Your task to perform on an android device: Is it going to rain today? Image 0: 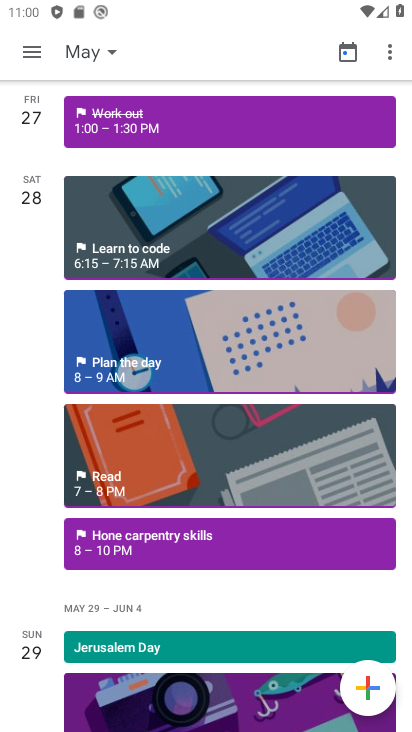
Step 0: press home button
Your task to perform on an android device: Is it going to rain today? Image 1: 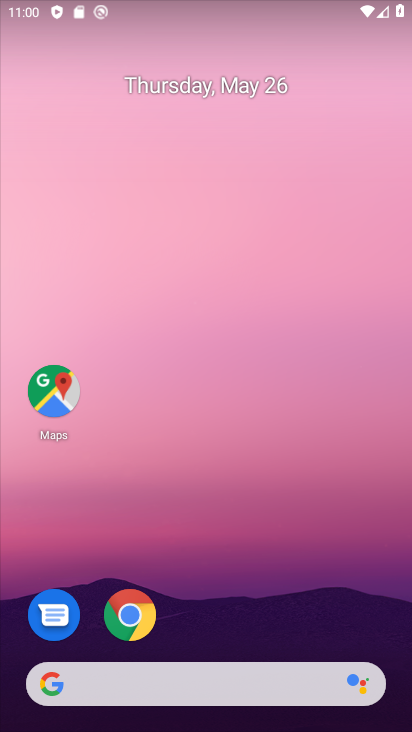
Step 1: click (144, 619)
Your task to perform on an android device: Is it going to rain today? Image 2: 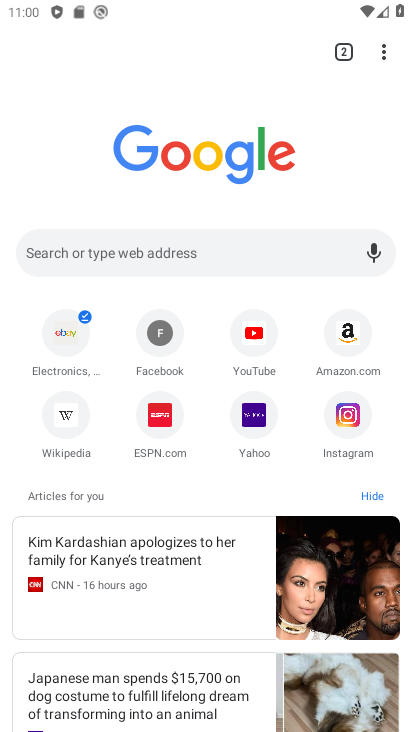
Step 2: click (280, 250)
Your task to perform on an android device: Is it going to rain today? Image 3: 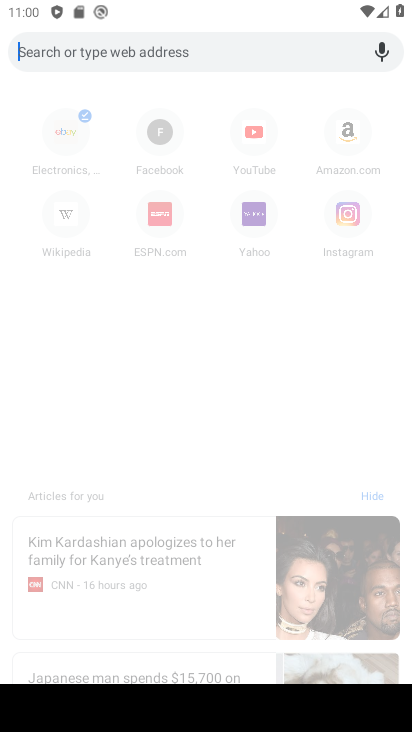
Step 3: type "Is it going to rain today?"
Your task to perform on an android device: Is it going to rain today? Image 4: 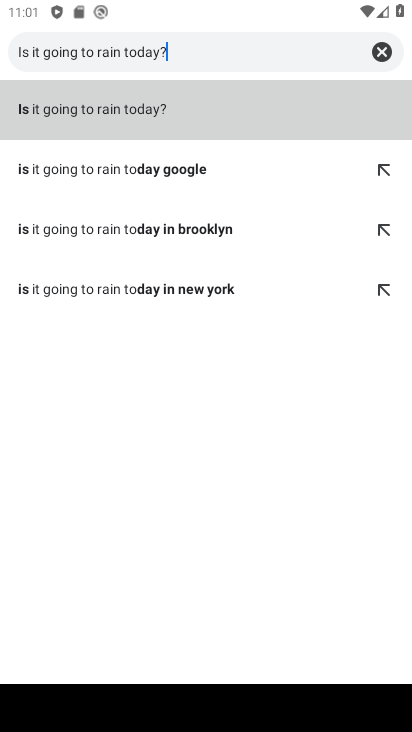
Step 4: click (260, 118)
Your task to perform on an android device: Is it going to rain today? Image 5: 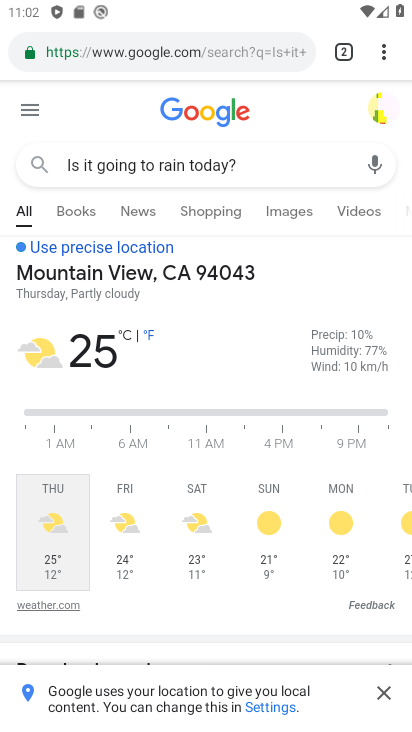
Step 5: task complete